Your task to perform on an android device: Go to battery settings Image 0: 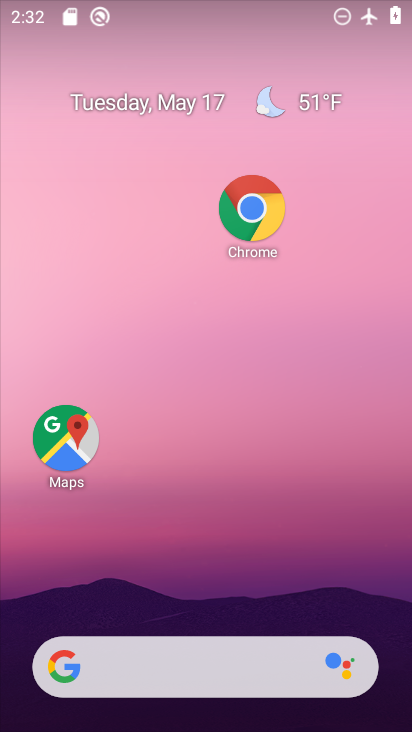
Step 0: drag from (202, 618) to (176, 59)
Your task to perform on an android device: Go to battery settings Image 1: 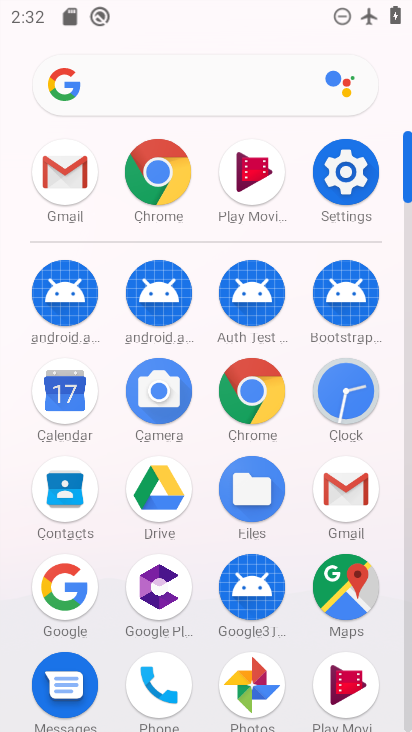
Step 1: click (365, 176)
Your task to perform on an android device: Go to battery settings Image 2: 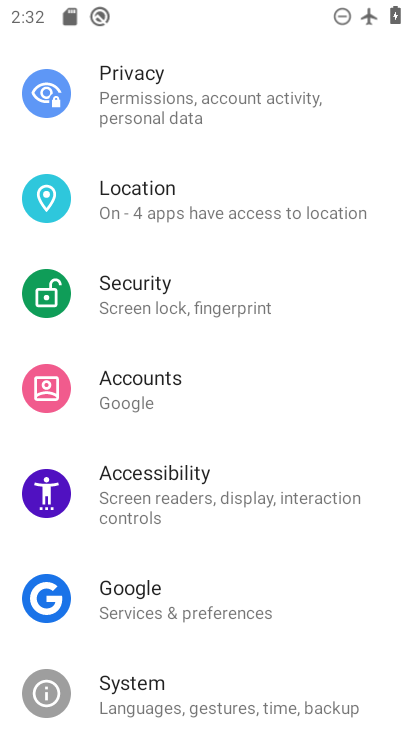
Step 2: drag from (223, 243) to (183, 491)
Your task to perform on an android device: Go to battery settings Image 3: 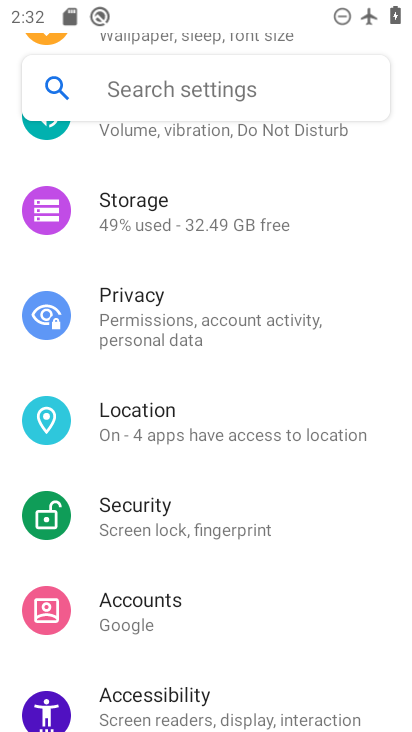
Step 3: drag from (198, 212) to (184, 689)
Your task to perform on an android device: Go to battery settings Image 4: 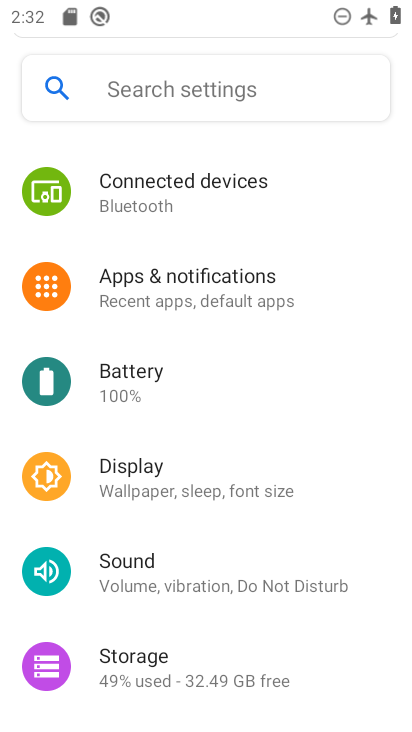
Step 4: click (166, 388)
Your task to perform on an android device: Go to battery settings Image 5: 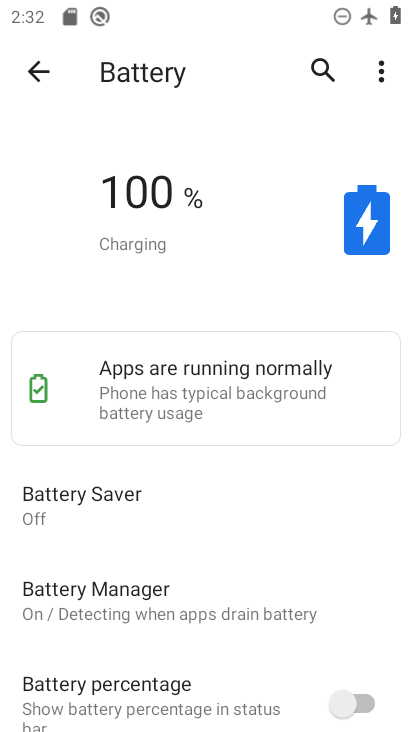
Step 5: task complete